Your task to perform on an android device: turn pop-ups on in chrome Image 0: 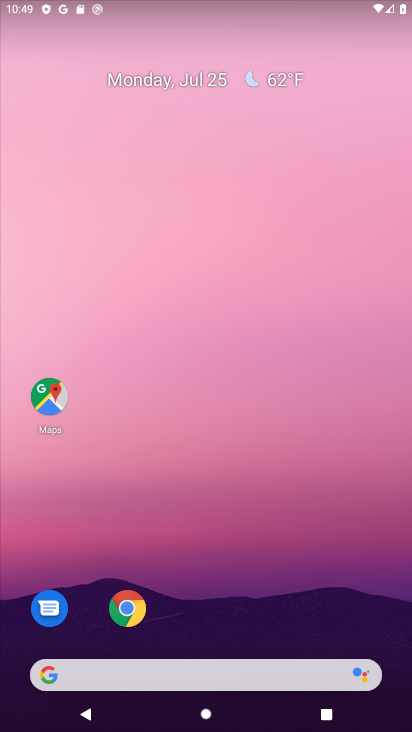
Step 0: click (135, 612)
Your task to perform on an android device: turn pop-ups on in chrome Image 1: 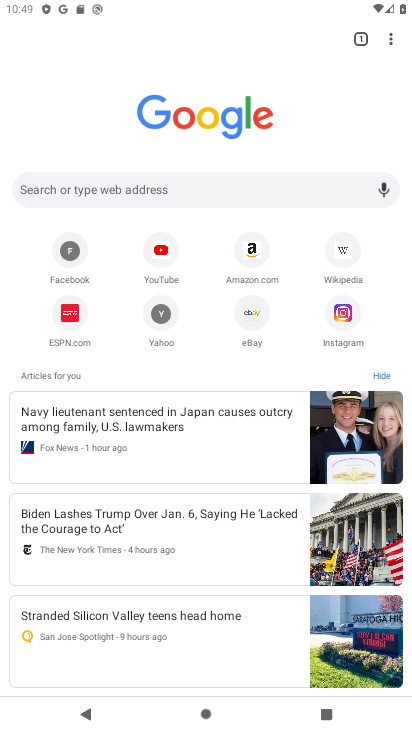
Step 1: task complete